Your task to perform on an android device: Open network settings Image 0: 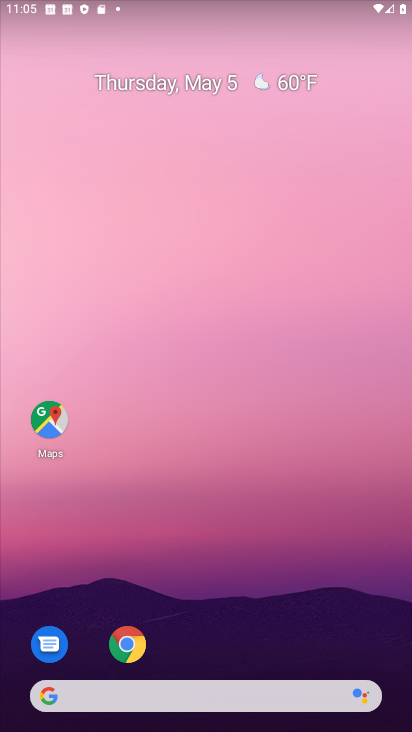
Step 0: drag from (250, 606) to (259, 248)
Your task to perform on an android device: Open network settings Image 1: 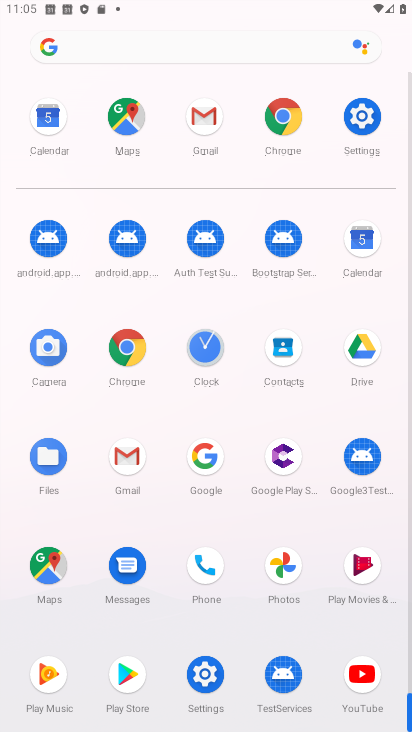
Step 1: drag from (244, 649) to (212, 291)
Your task to perform on an android device: Open network settings Image 2: 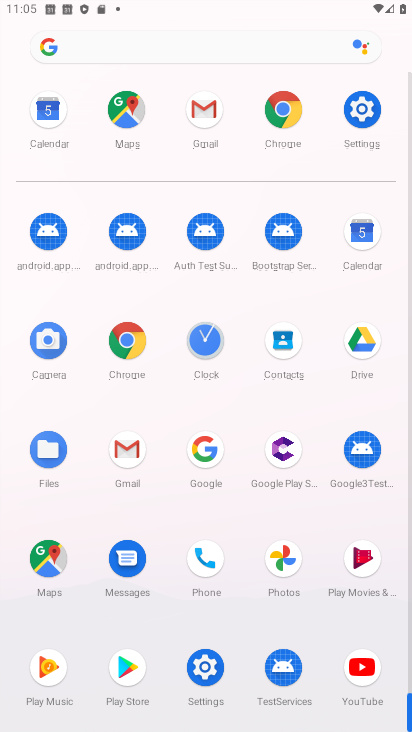
Step 2: drag from (240, 614) to (244, 365)
Your task to perform on an android device: Open network settings Image 3: 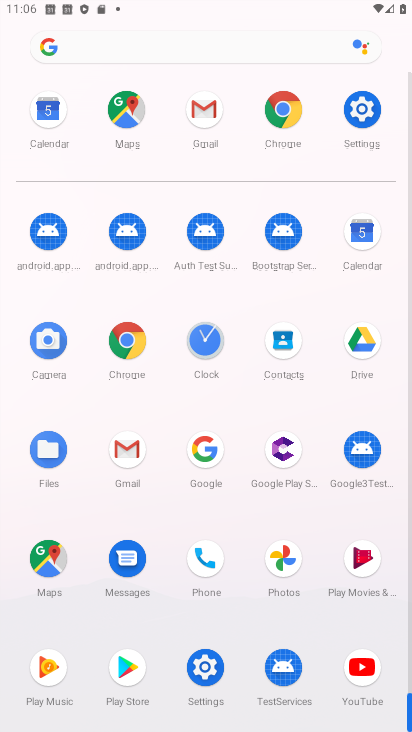
Step 3: click (352, 108)
Your task to perform on an android device: Open network settings Image 4: 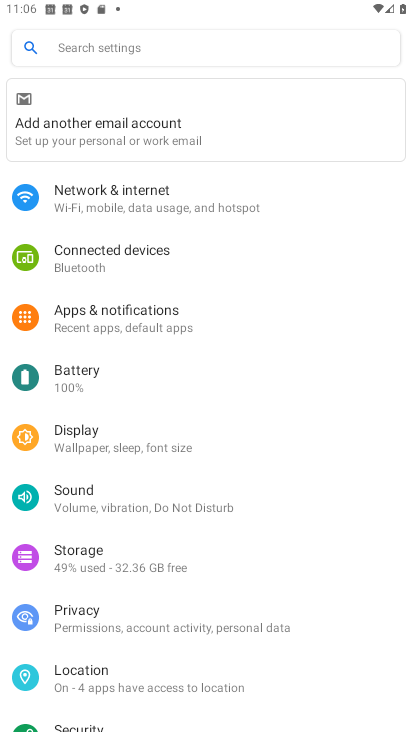
Step 4: click (133, 190)
Your task to perform on an android device: Open network settings Image 5: 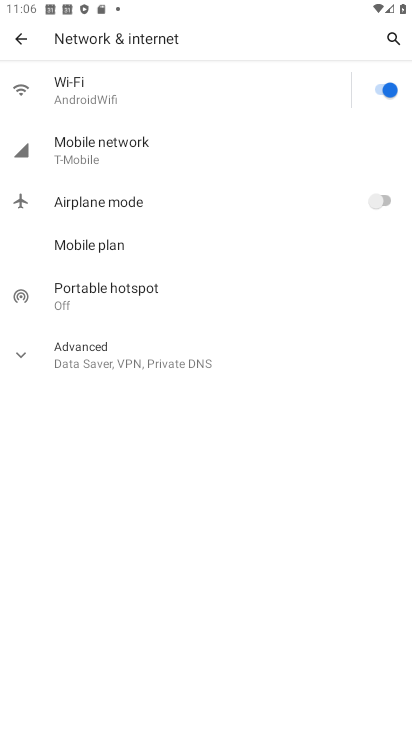
Step 5: click (176, 151)
Your task to perform on an android device: Open network settings Image 6: 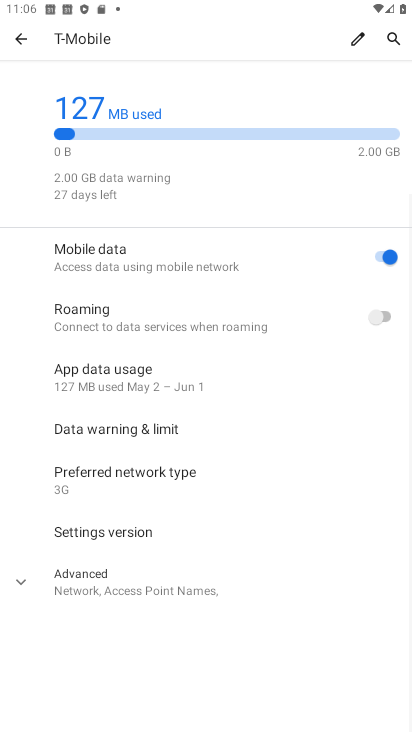
Step 6: task complete